Your task to perform on an android device: empty trash in the gmail app Image 0: 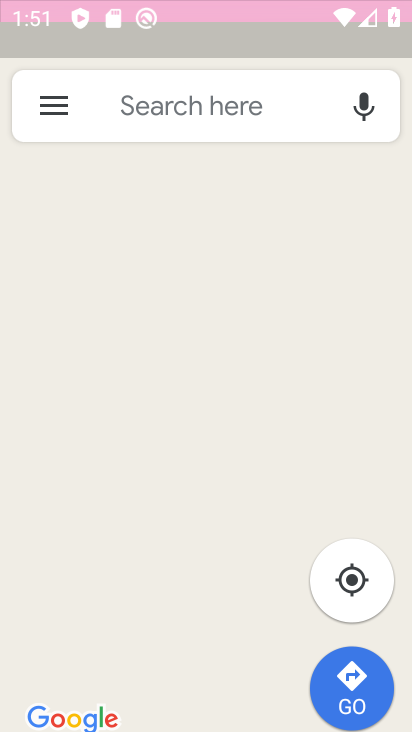
Step 0: press home button
Your task to perform on an android device: empty trash in the gmail app Image 1: 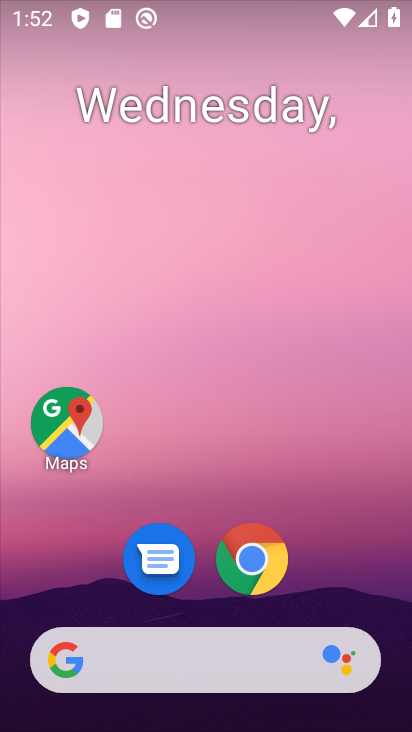
Step 1: drag from (335, 547) to (254, 108)
Your task to perform on an android device: empty trash in the gmail app Image 2: 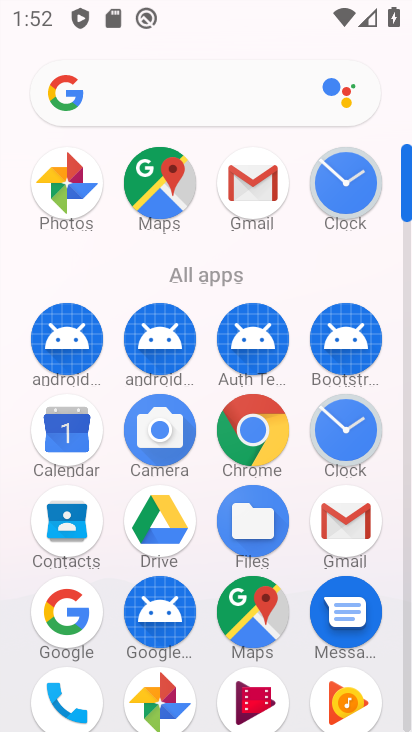
Step 2: click (254, 189)
Your task to perform on an android device: empty trash in the gmail app Image 3: 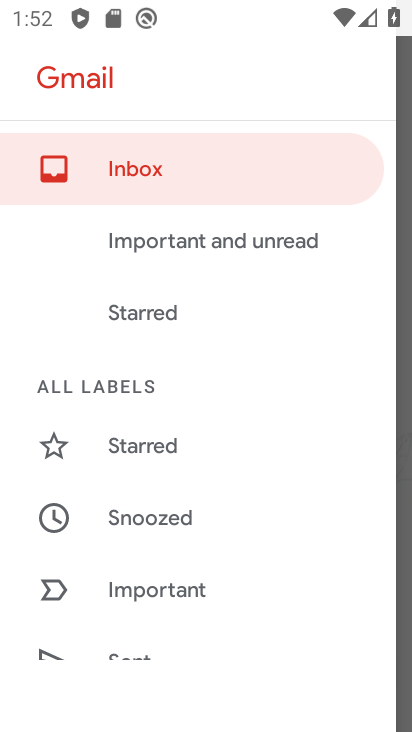
Step 3: drag from (236, 654) to (233, 104)
Your task to perform on an android device: empty trash in the gmail app Image 4: 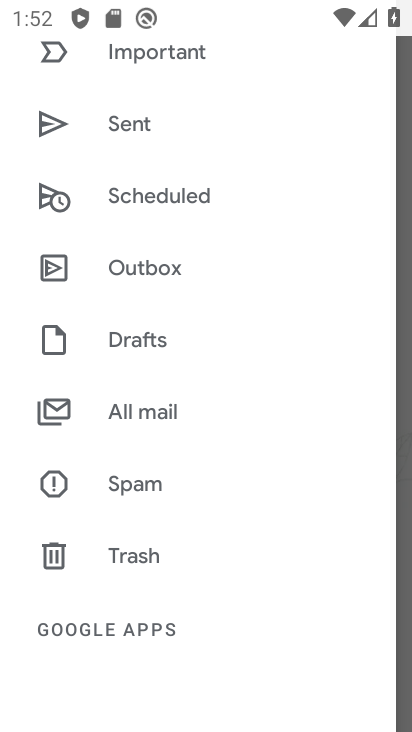
Step 4: click (173, 555)
Your task to perform on an android device: empty trash in the gmail app Image 5: 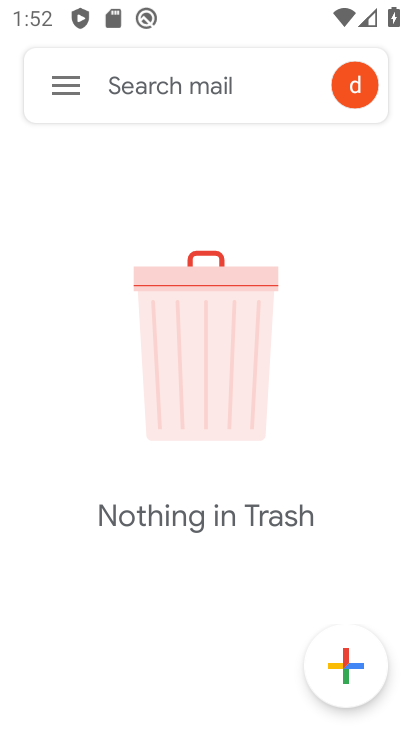
Step 5: task complete